Your task to perform on an android device: move a message to another label in the gmail app Image 0: 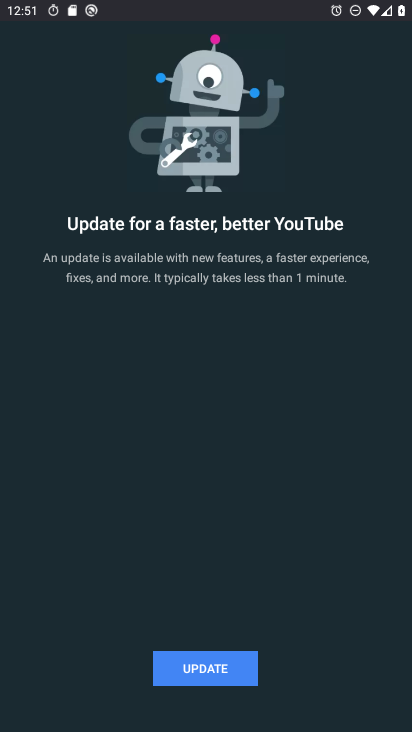
Step 0: press home button
Your task to perform on an android device: move a message to another label in the gmail app Image 1: 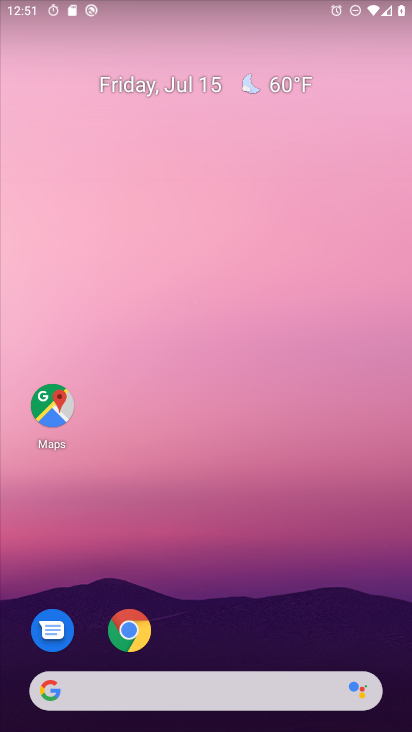
Step 1: drag from (177, 606) to (178, 163)
Your task to perform on an android device: move a message to another label in the gmail app Image 2: 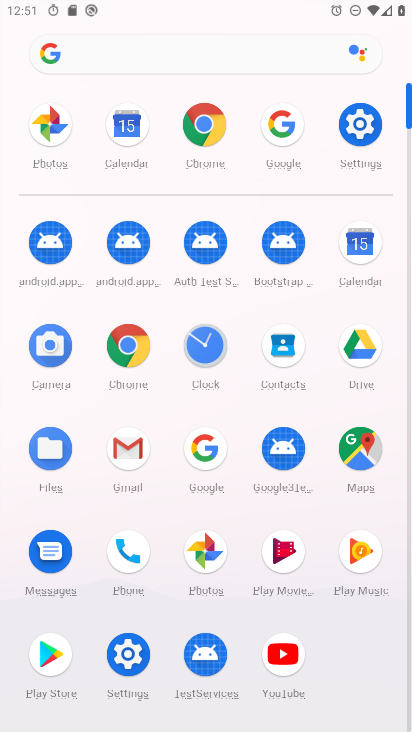
Step 2: click (311, 144)
Your task to perform on an android device: move a message to another label in the gmail app Image 3: 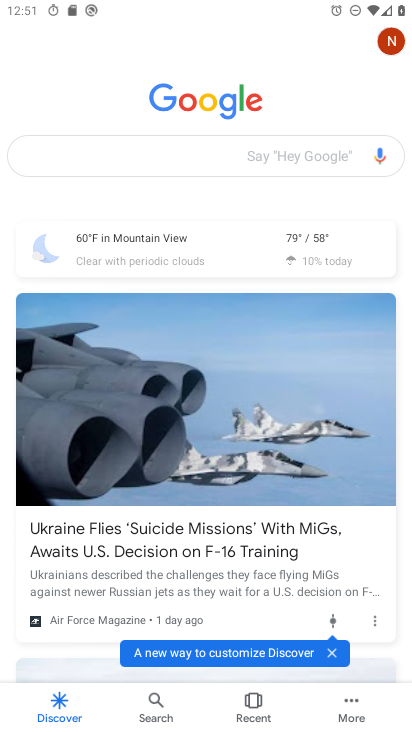
Step 3: press back button
Your task to perform on an android device: move a message to another label in the gmail app Image 4: 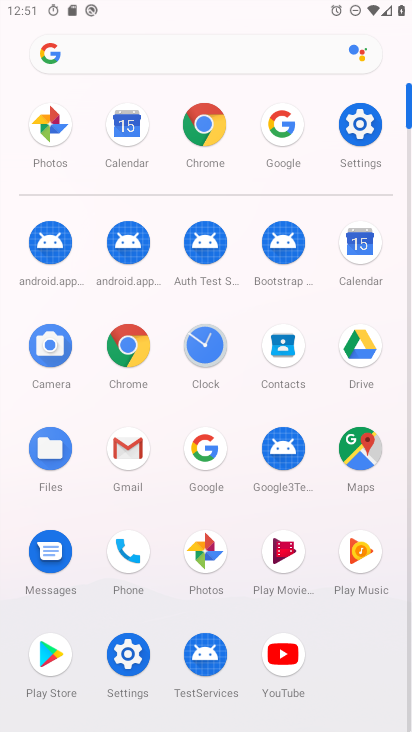
Step 4: click (116, 467)
Your task to perform on an android device: move a message to another label in the gmail app Image 5: 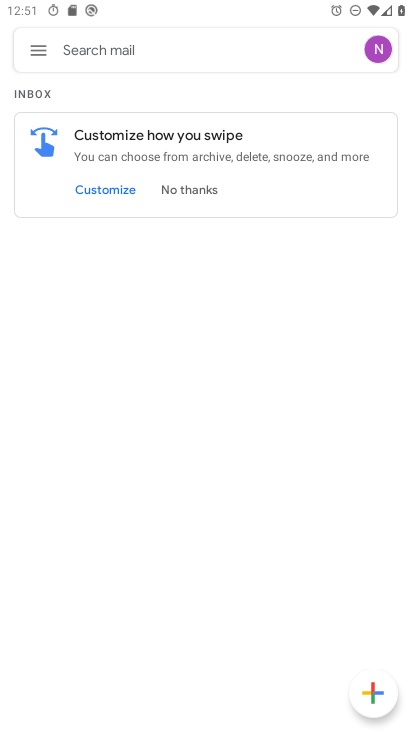
Step 5: click (30, 46)
Your task to perform on an android device: move a message to another label in the gmail app Image 6: 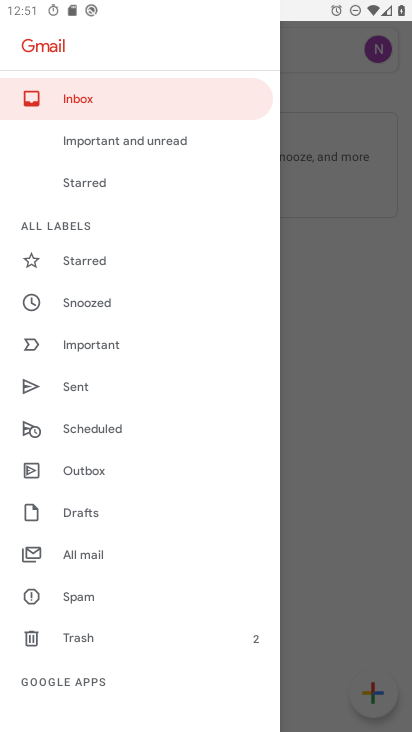
Step 6: click (87, 554)
Your task to perform on an android device: move a message to another label in the gmail app Image 7: 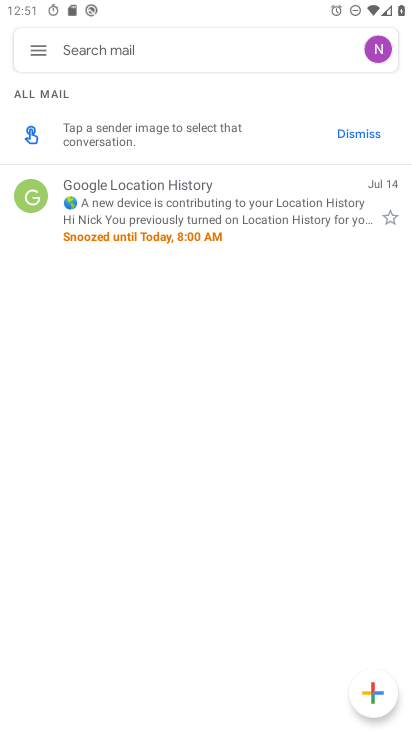
Step 7: click (302, 219)
Your task to perform on an android device: move a message to another label in the gmail app Image 8: 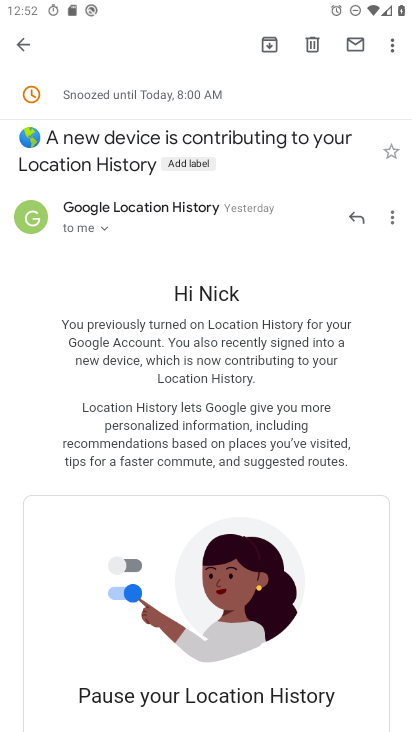
Step 8: click (390, 53)
Your task to perform on an android device: move a message to another label in the gmail app Image 9: 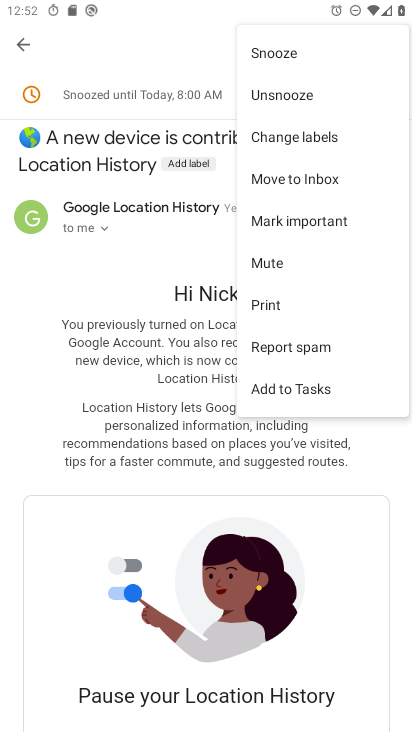
Step 9: click (263, 180)
Your task to perform on an android device: move a message to another label in the gmail app Image 10: 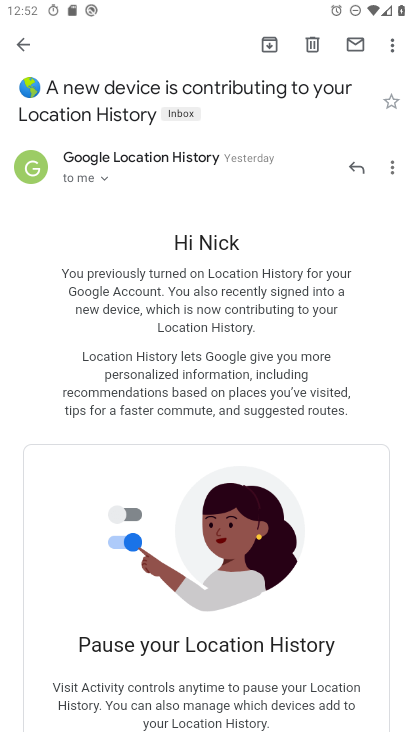
Step 10: task complete